Your task to perform on an android device: open app "Skype" (install if not already installed) Image 0: 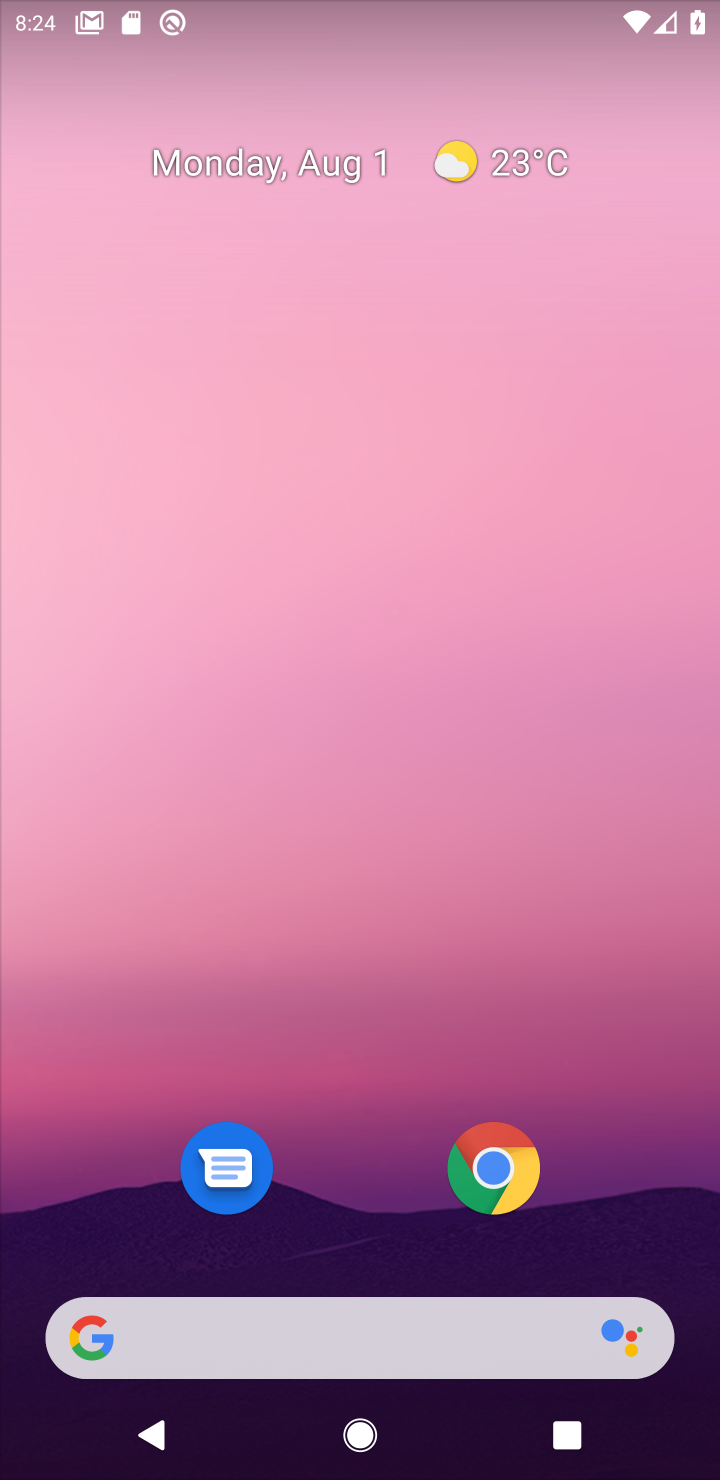
Step 0: drag from (337, 423) to (221, 2)
Your task to perform on an android device: open app "Skype" (install if not already installed) Image 1: 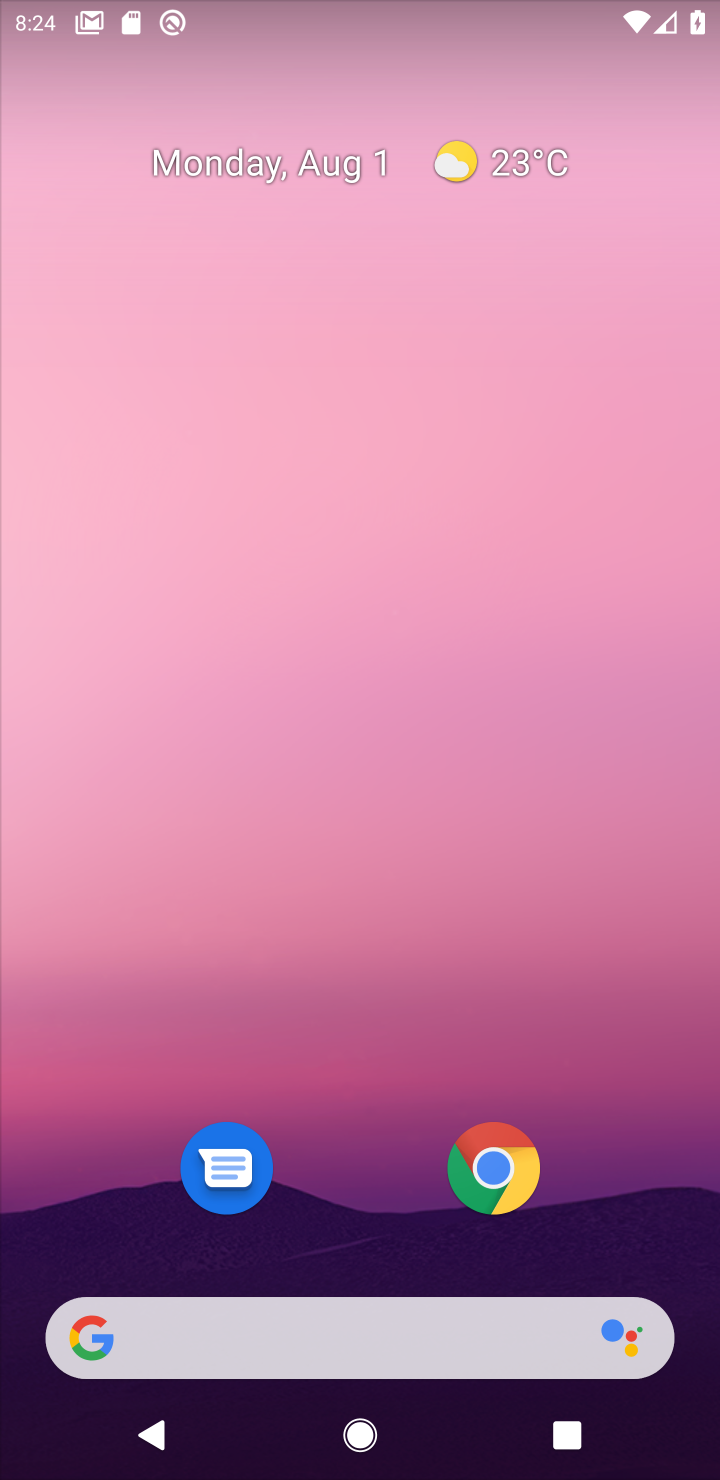
Step 1: drag from (340, 1144) to (553, 497)
Your task to perform on an android device: open app "Skype" (install if not already installed) Image 2: 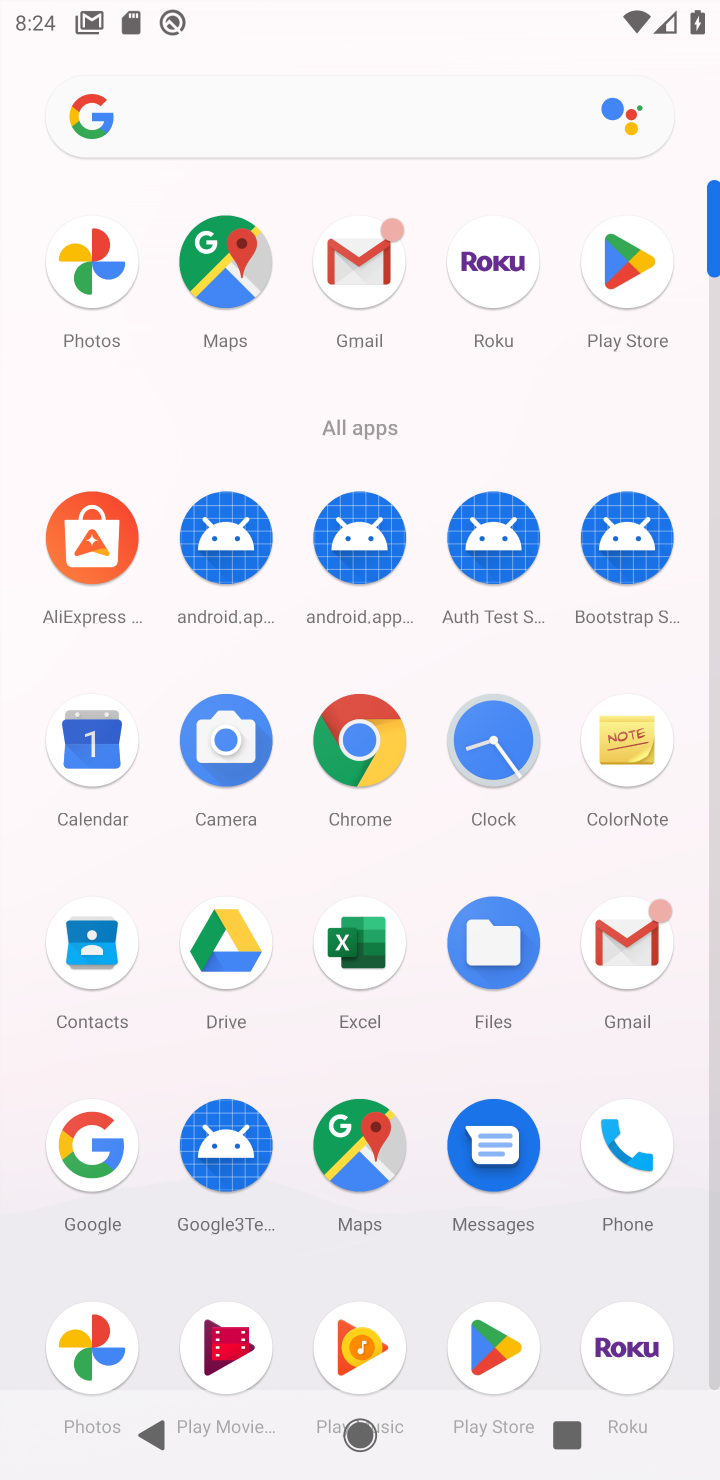
Step 2: click (640, 427)
Your task to perform on an android device: open app "Skype" (install if not already installed) Image 3: 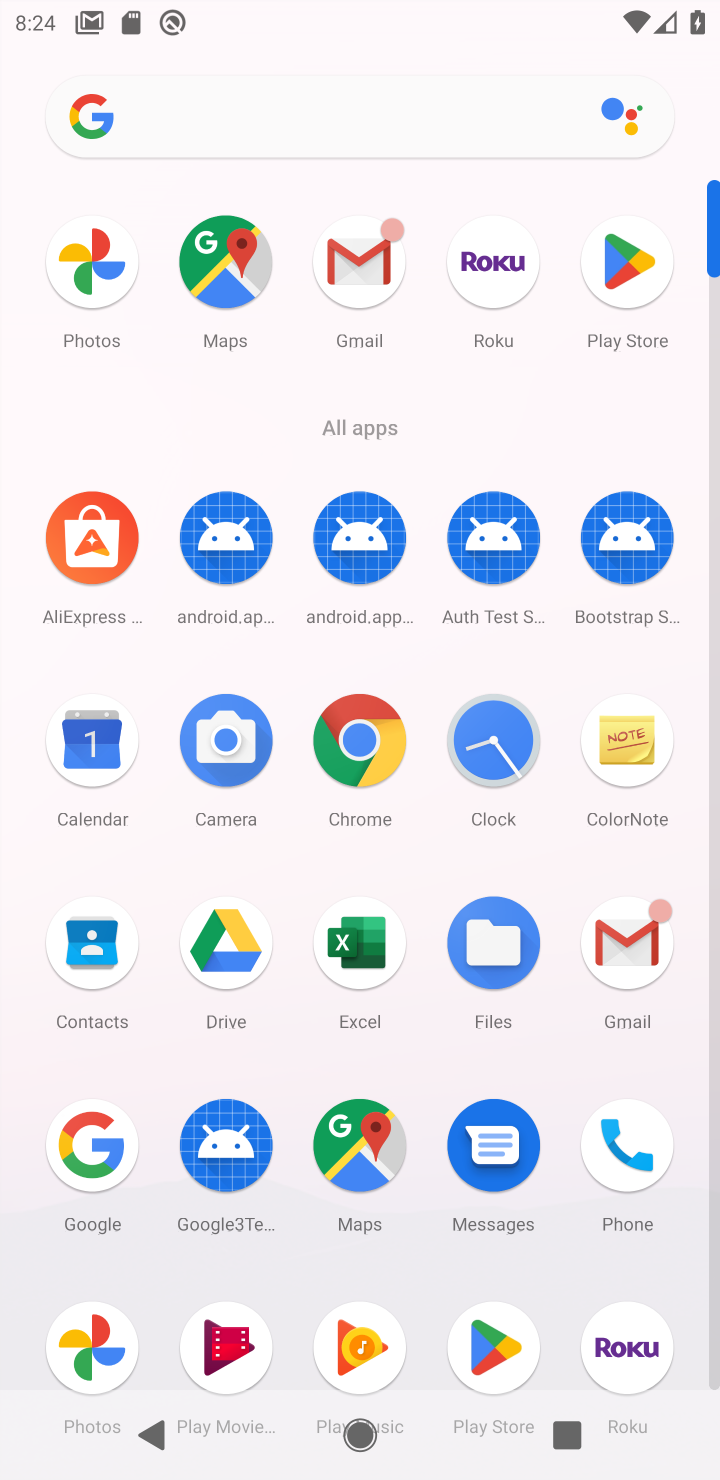
Step 3: click (651, 293)
Your task to perform on an android device: open app "Skype" (install if not already installed) Image 4: 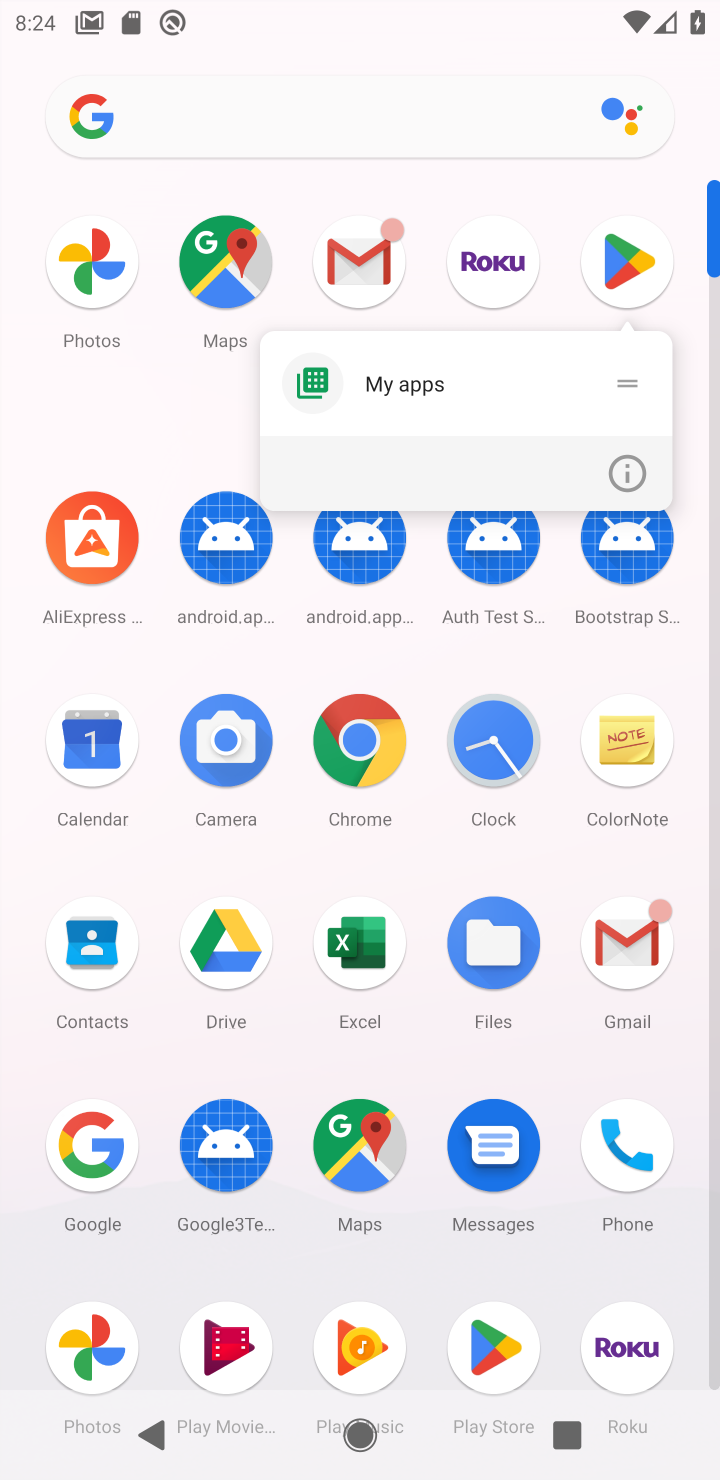
Step 4: click (628, 249)
Your task to perform on an android device: open app "Skype" (install if not already installed) Image 5: 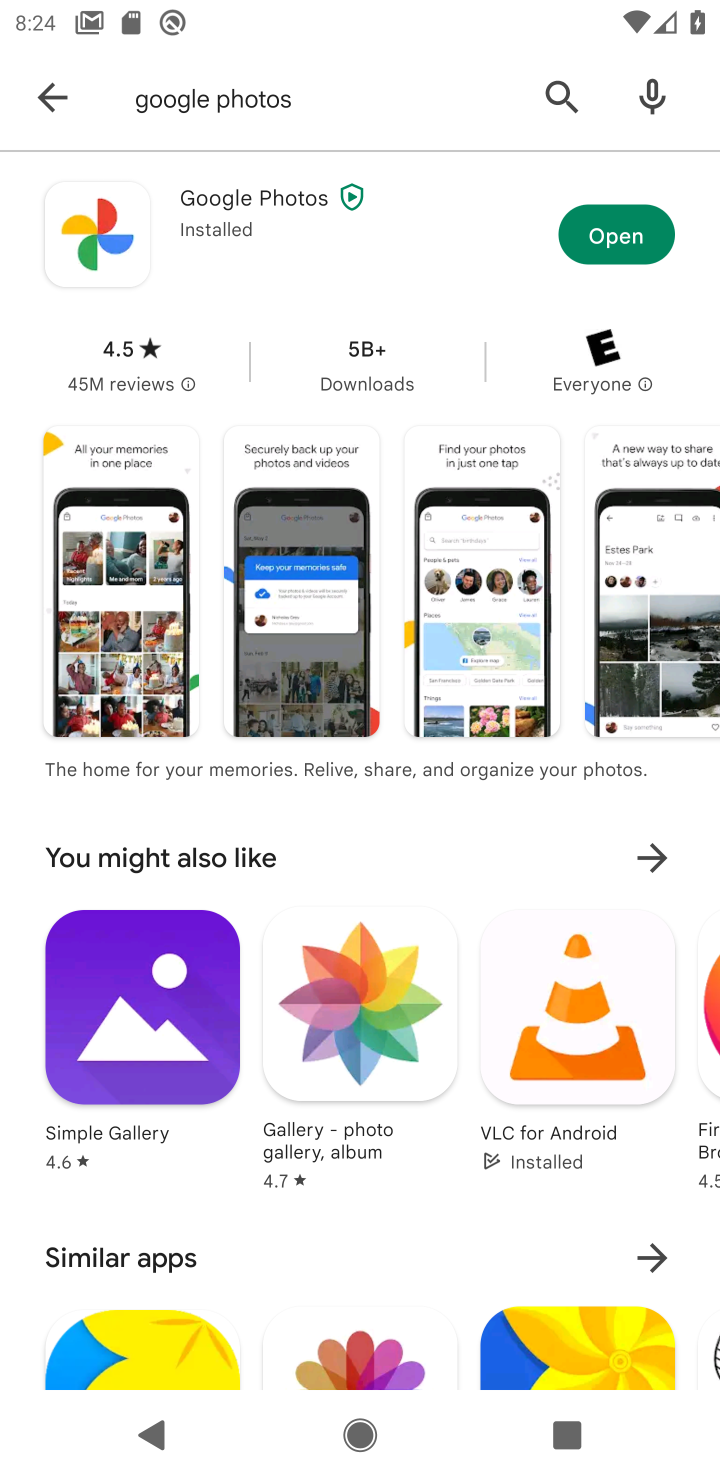
Step 5: click (272, 96)
Your task to perform on an android device: open app "Skype" (install if not already installed) Image 6: 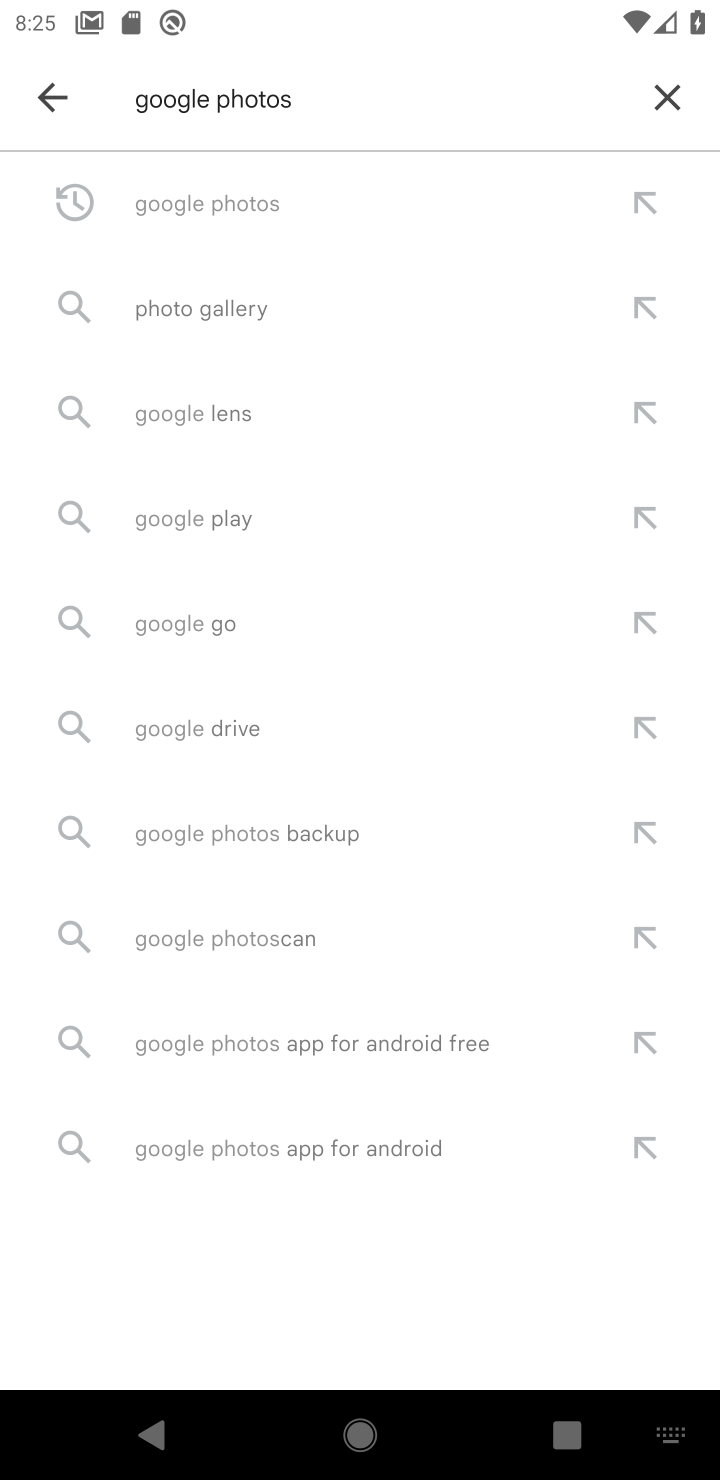
Step 6: click (658, 93)
Your task to perform on an android device: open app "Skype" (install if not already installed) Image 7: 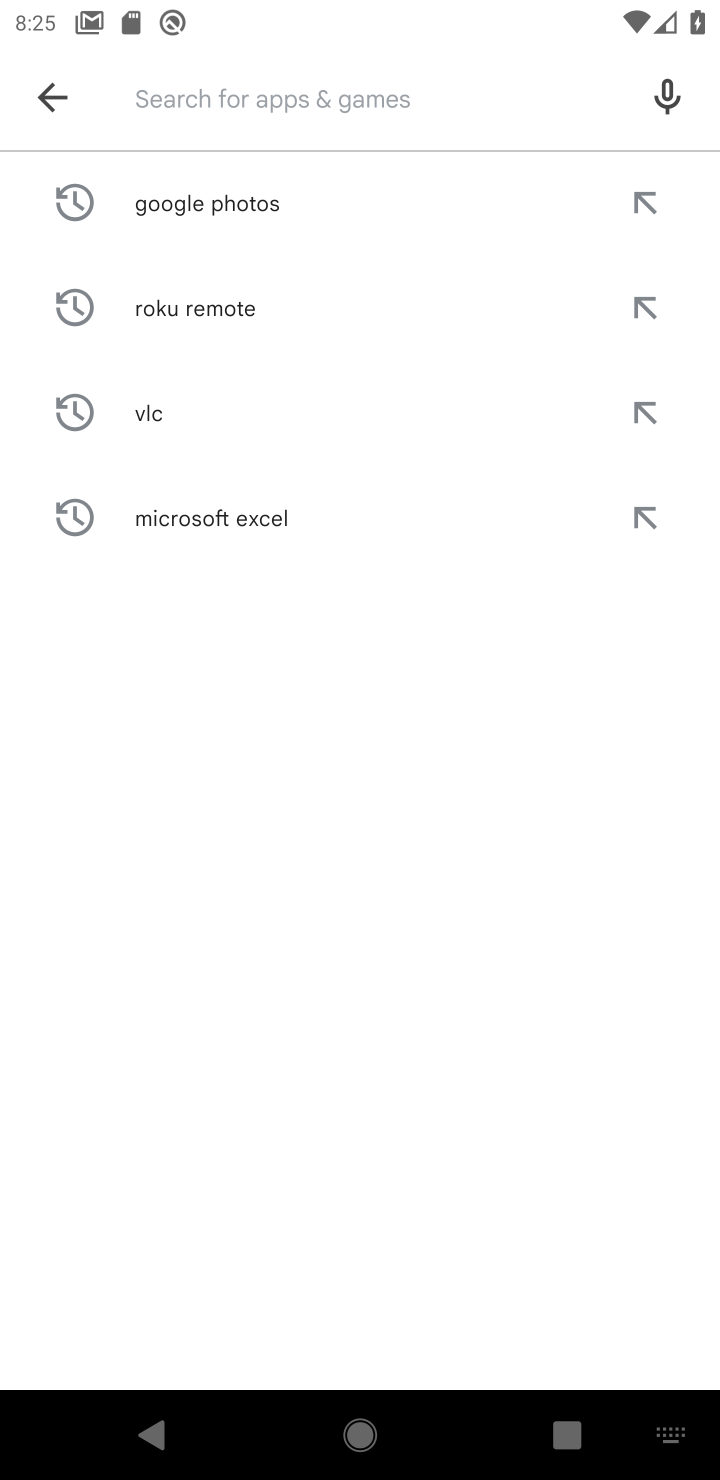
Step 7: type "skype"
Your task to perform on an android device: open app "Skype" (install if not already installed) Image 8: 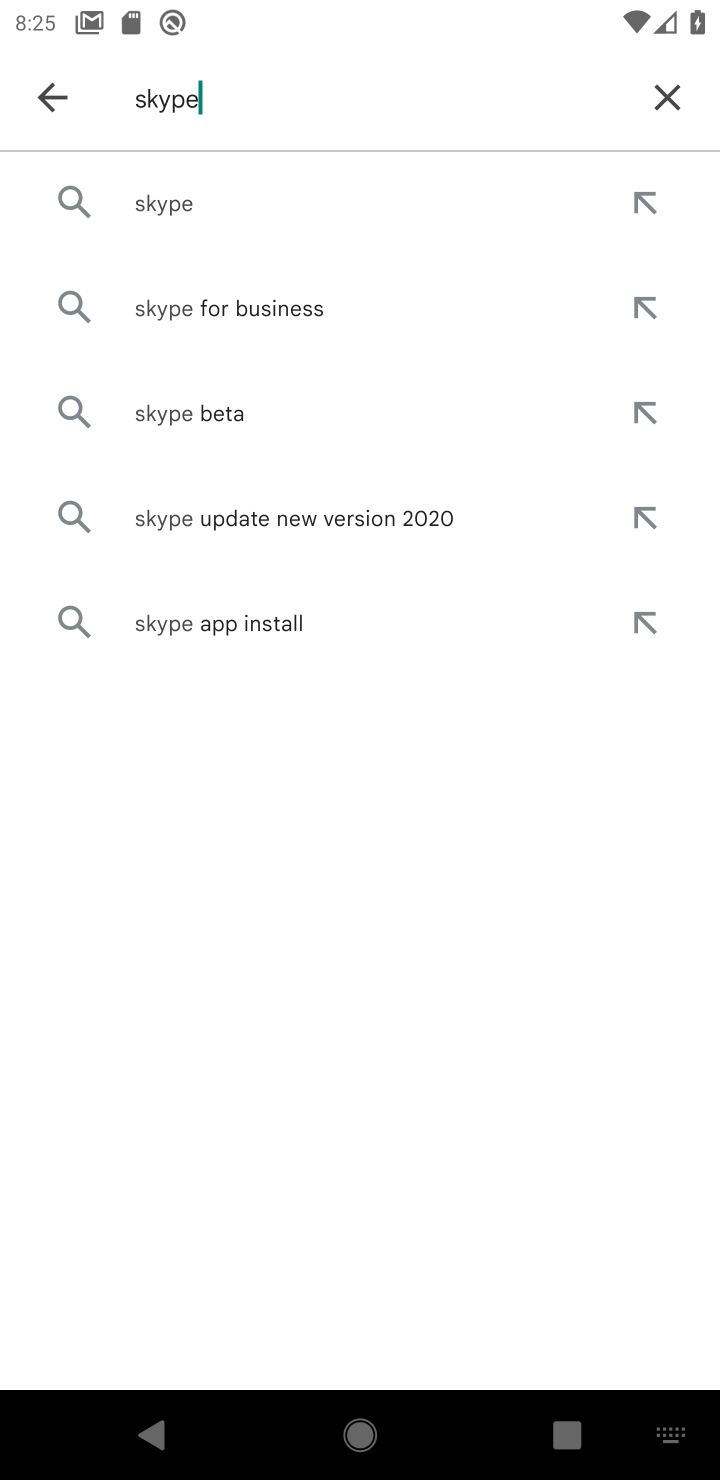
Step 8: click (141, 235)
Your task to perform on an android device: open app "Skype" (install if not already installed) Image 9: 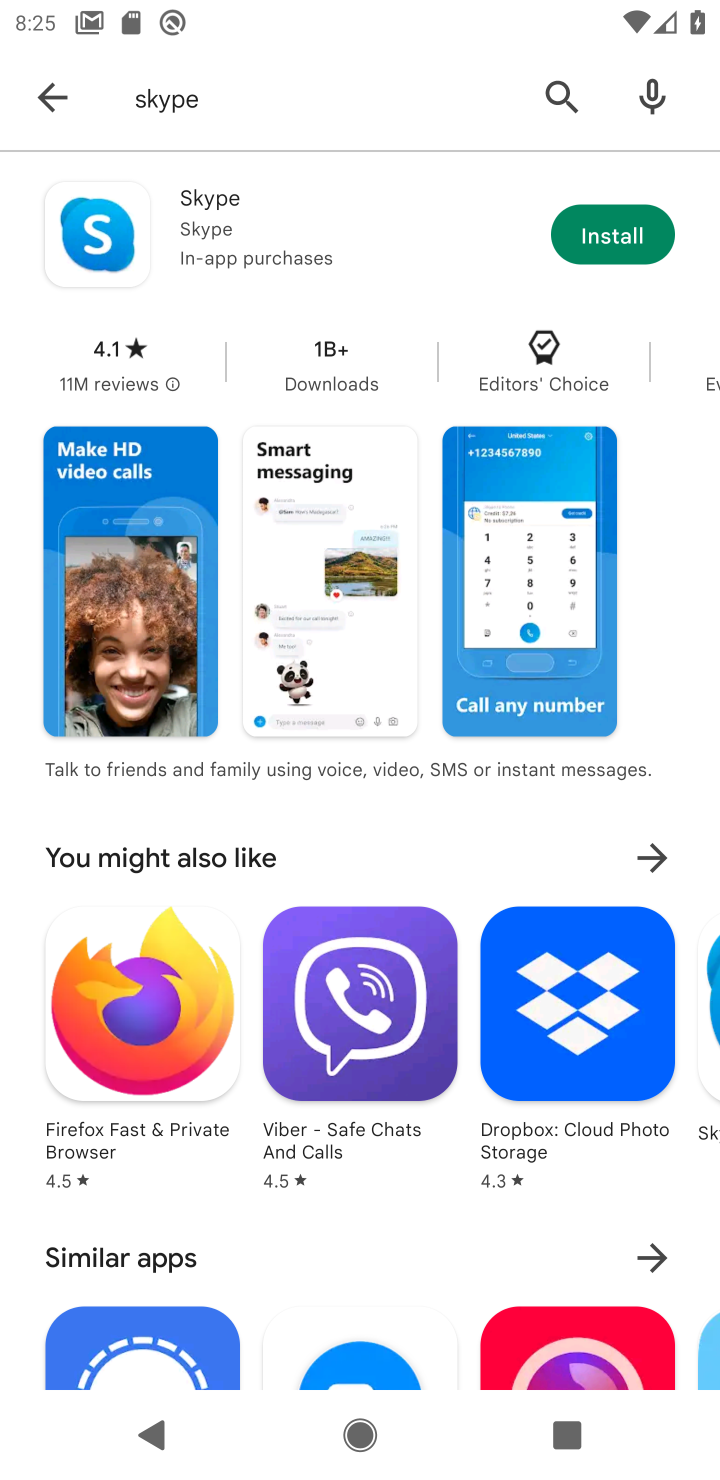
Step 9: click (615, 222)
Your task to perform on an android device: open app "Skype" (install if not already installed) Image 10: 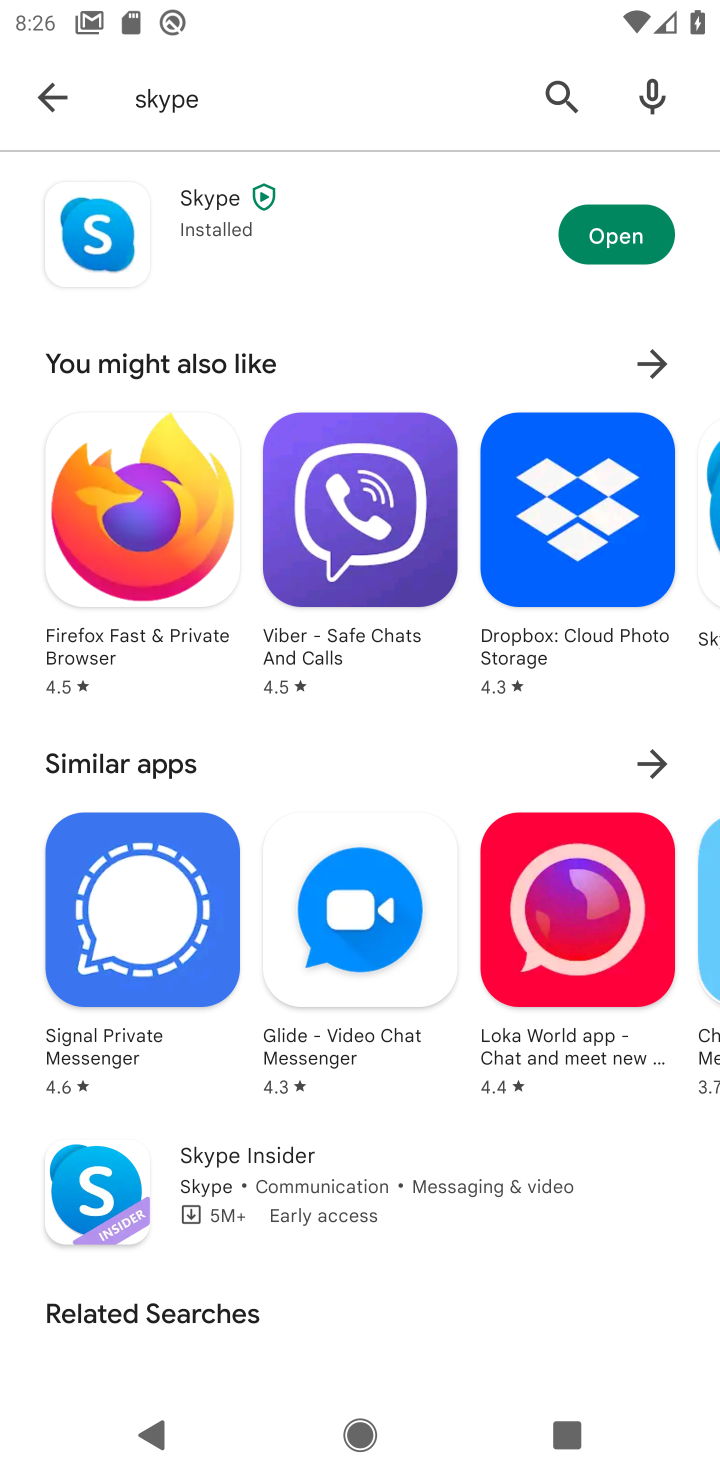
Step 10: click (553, 223)
Your task to perform on an android device: open app "Skype" (install if not already installed) Image 11: 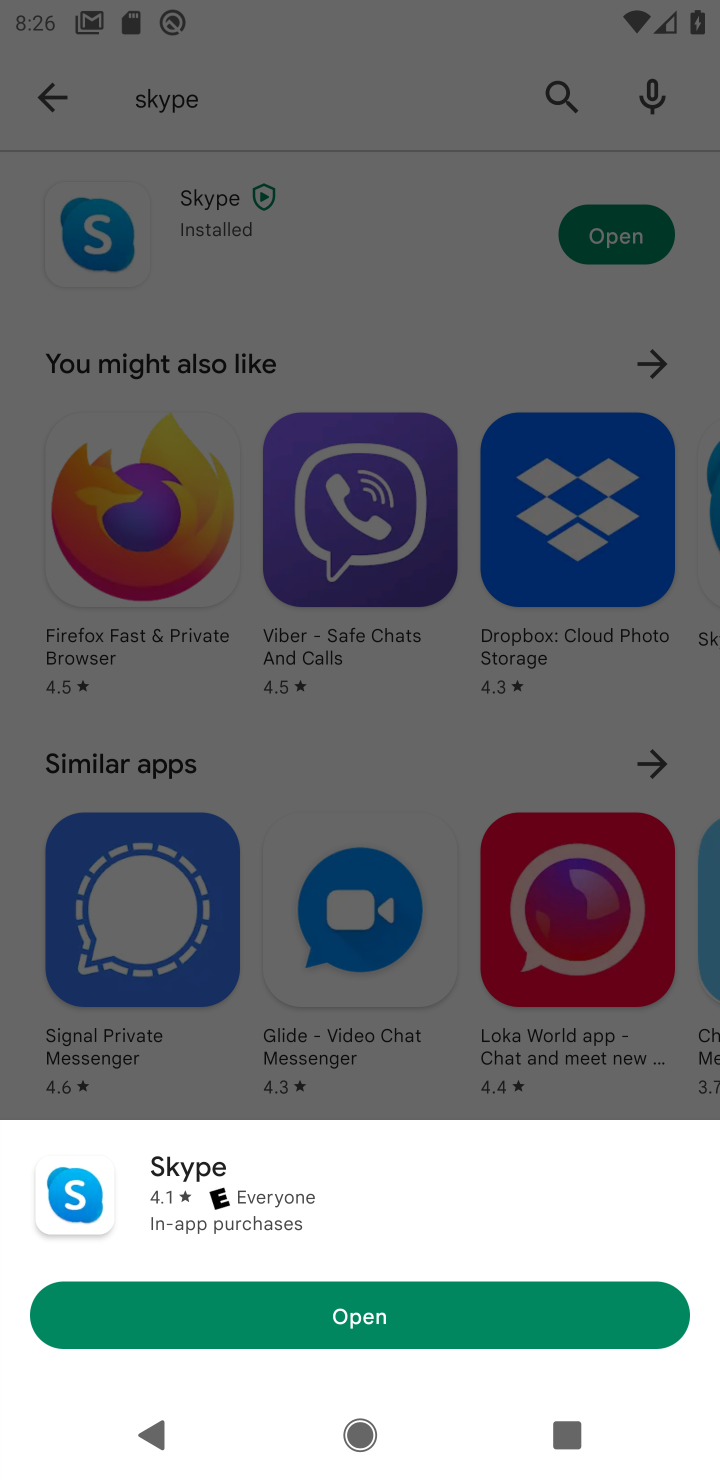
Step 11: click (392, 1303)
Your task to perform on an android device: open app "Skype" (install if not already installed) Image 12: 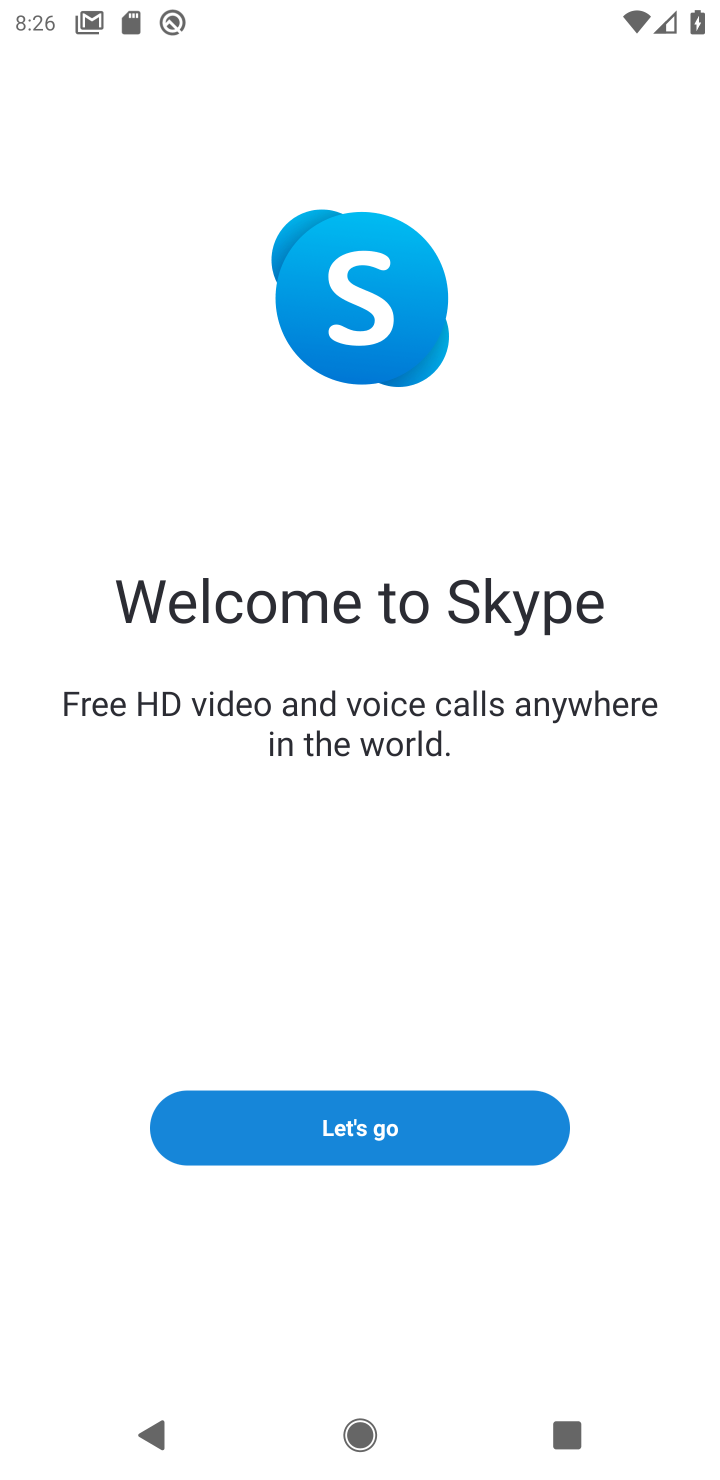
Step 12: click (380, 1130)
Your task to perform on an android device: open app "Skype" (install if not already installed) Image 13: 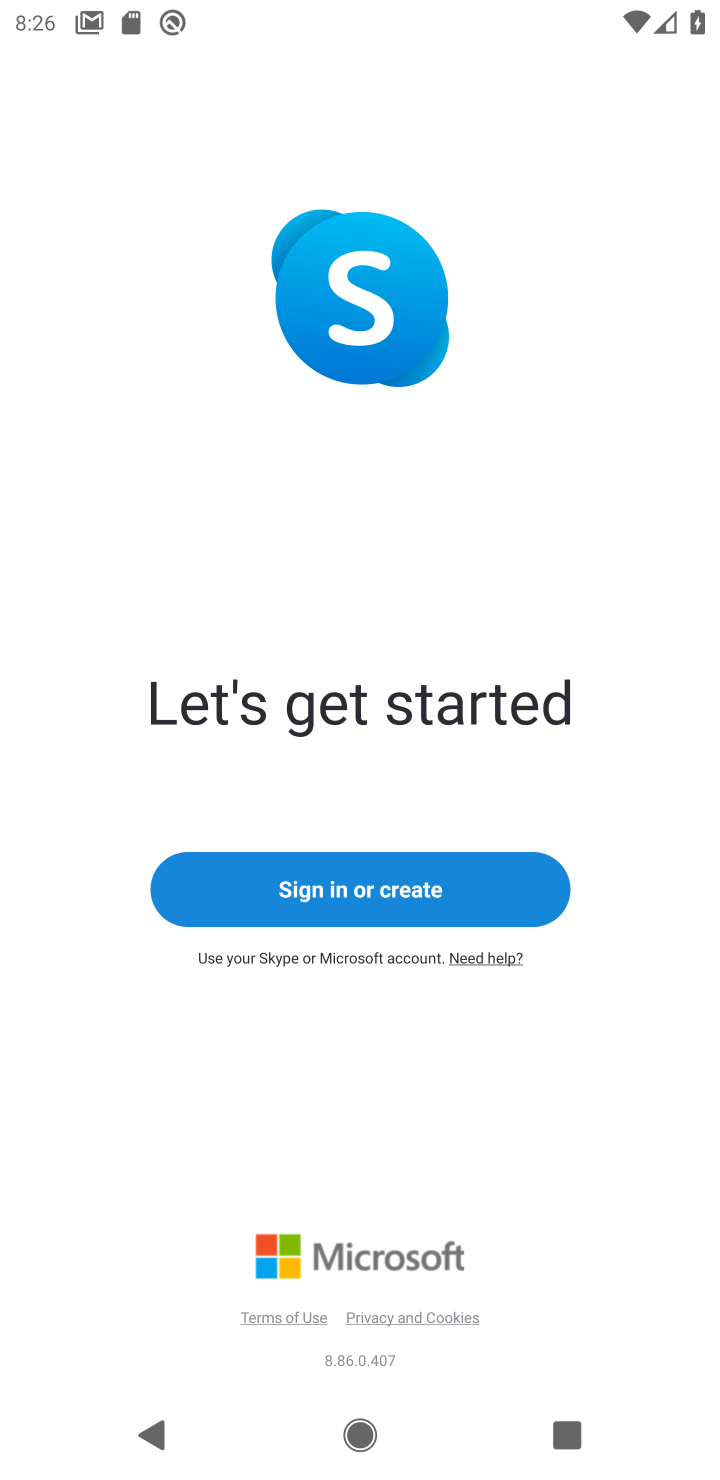
Step 13: click (458, 881)
Your task to perform on an android device: open app "Skype" (install if not already installed) Image 14: 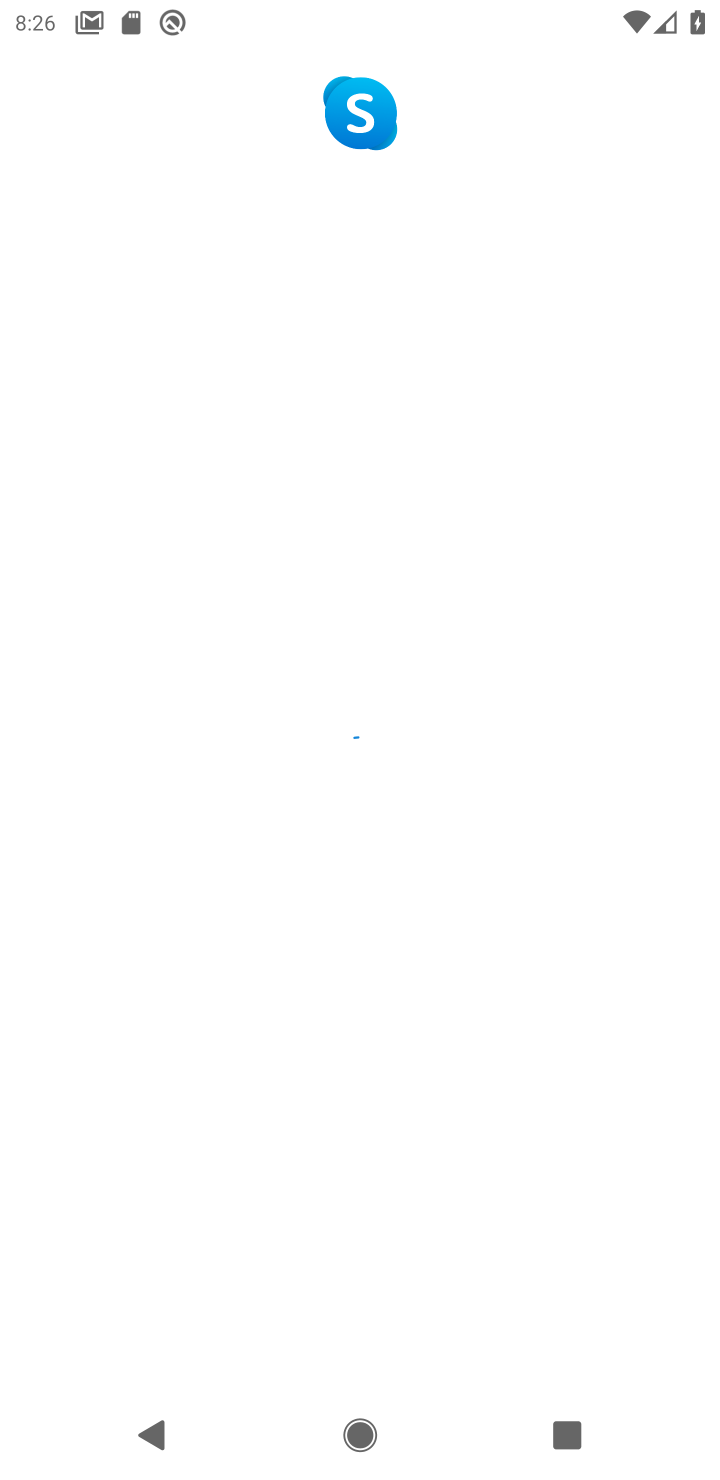
Step 14: task complete